Your task to perform on an android device: Check the weather Image 0: 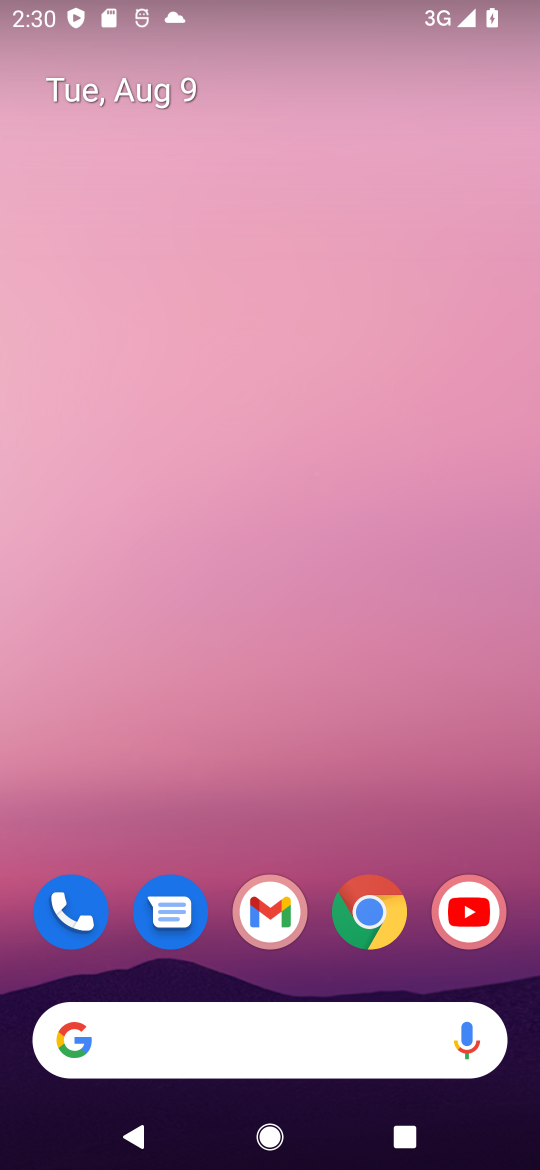
Step 0: drag from (280, 513) to (204, 74)
Your task to perform on an android device: Check the weather Image 1: 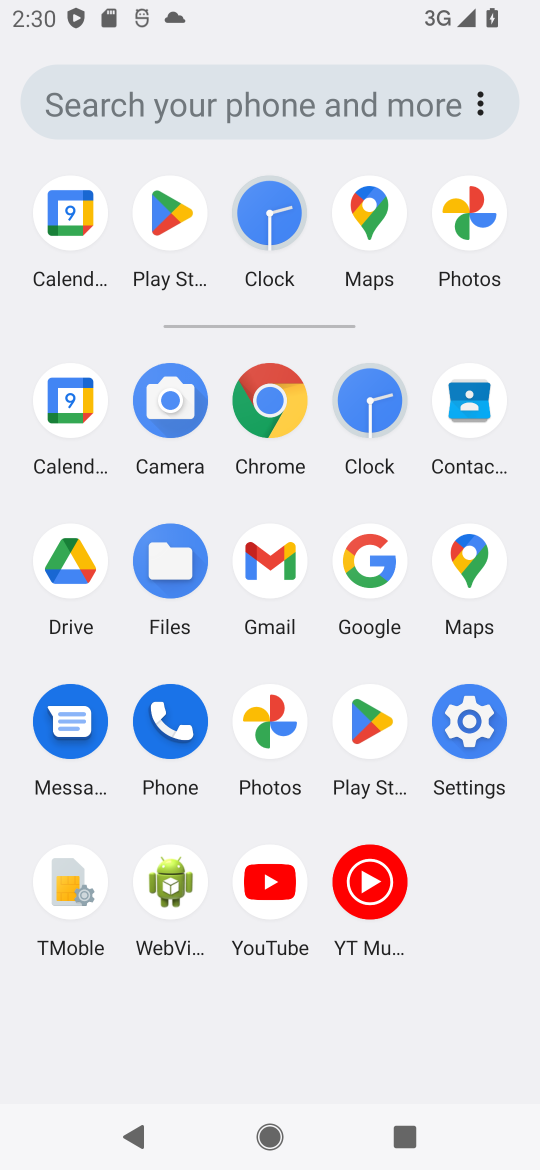
Step 1: click (364, 560)
Your task to perform on an android device: Check the weather Image 2: 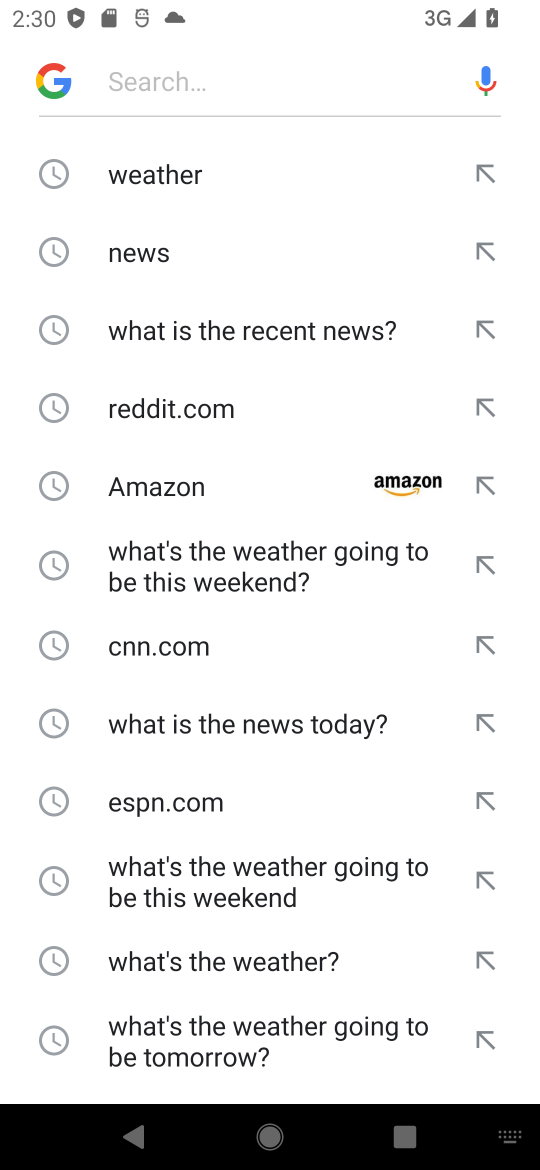
Step 2: click (159, 164)
Your task to perform on an android device: Check the weather Image 3: 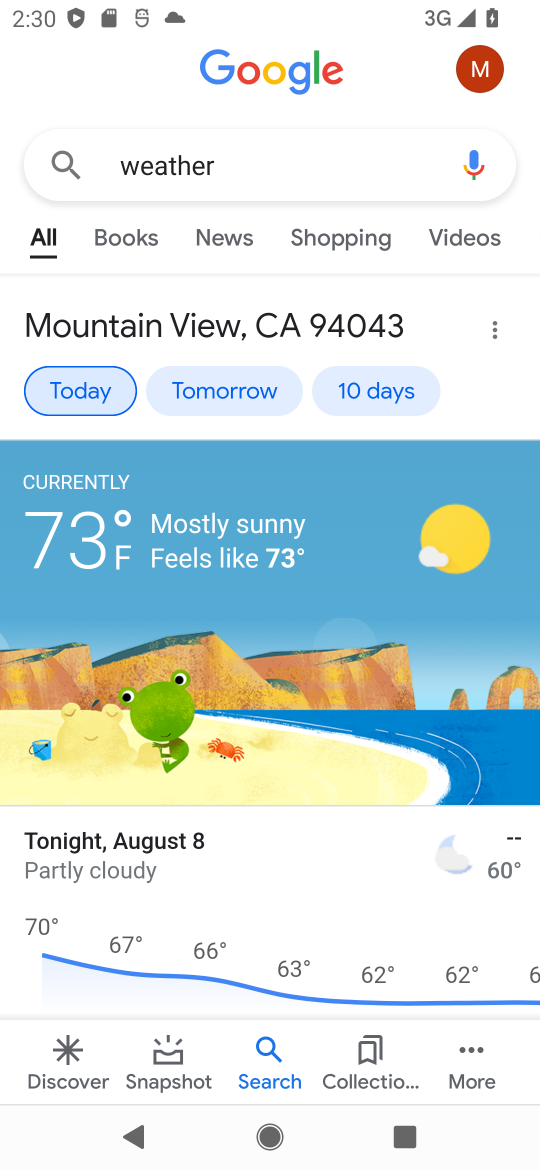
Step 3: task complete